Your task to perform on an android device: open app "Grab" (install if not already installed) Image 0: 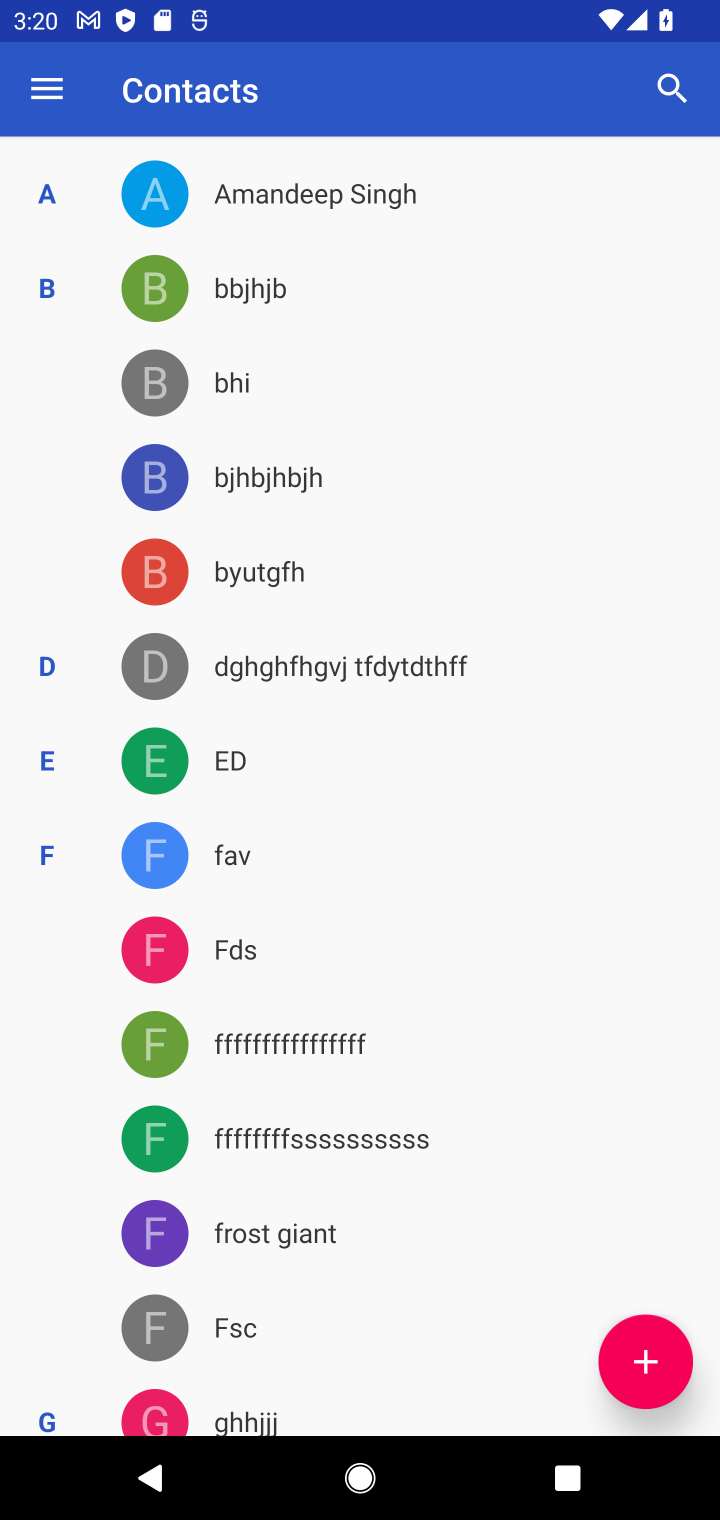
Step 0: press home button
Your task to perform on an android device: open app "Grab" (install if not already installed) Image 1: 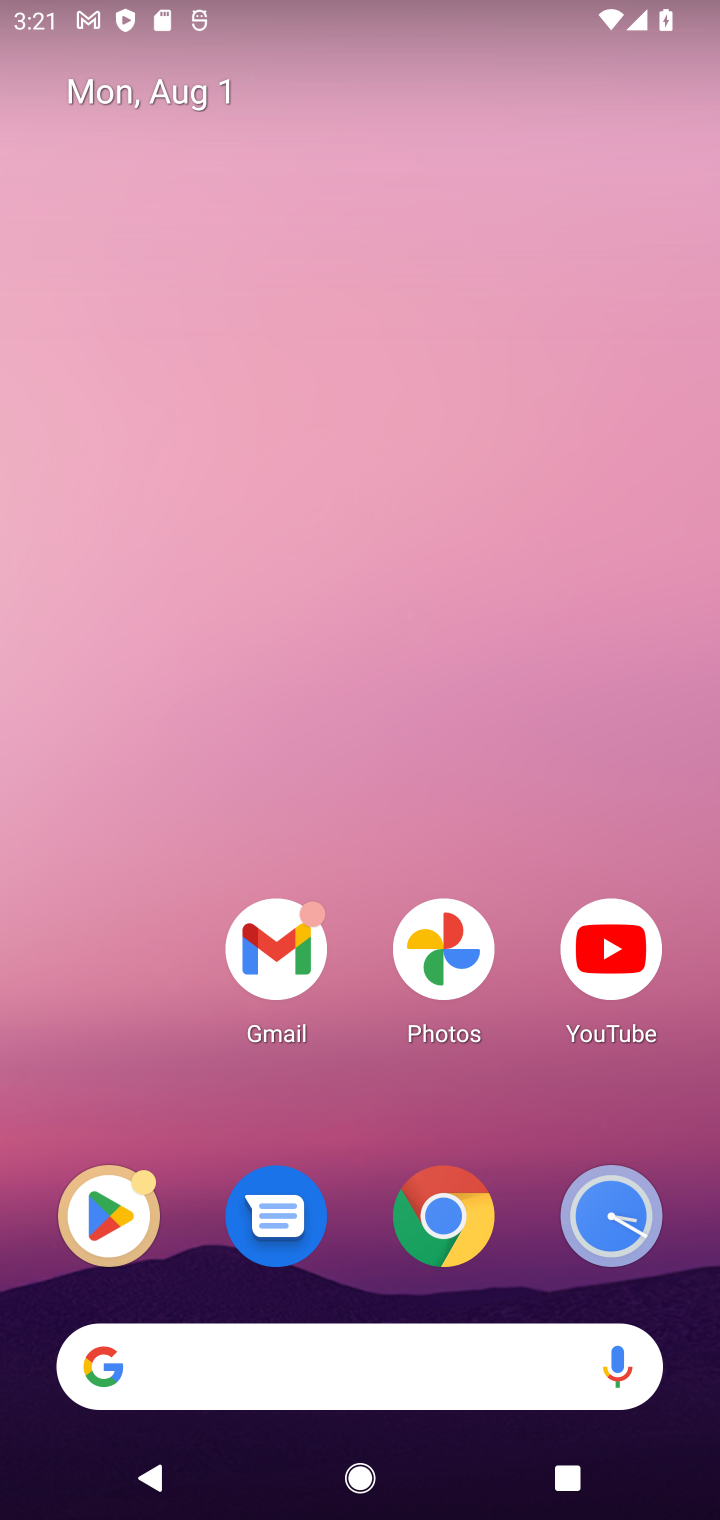
Step 1: drag from (483, 1371) to (454, 114)
Your task to perform on an android device: open app "Grab" (install if not already installed) Image 2: 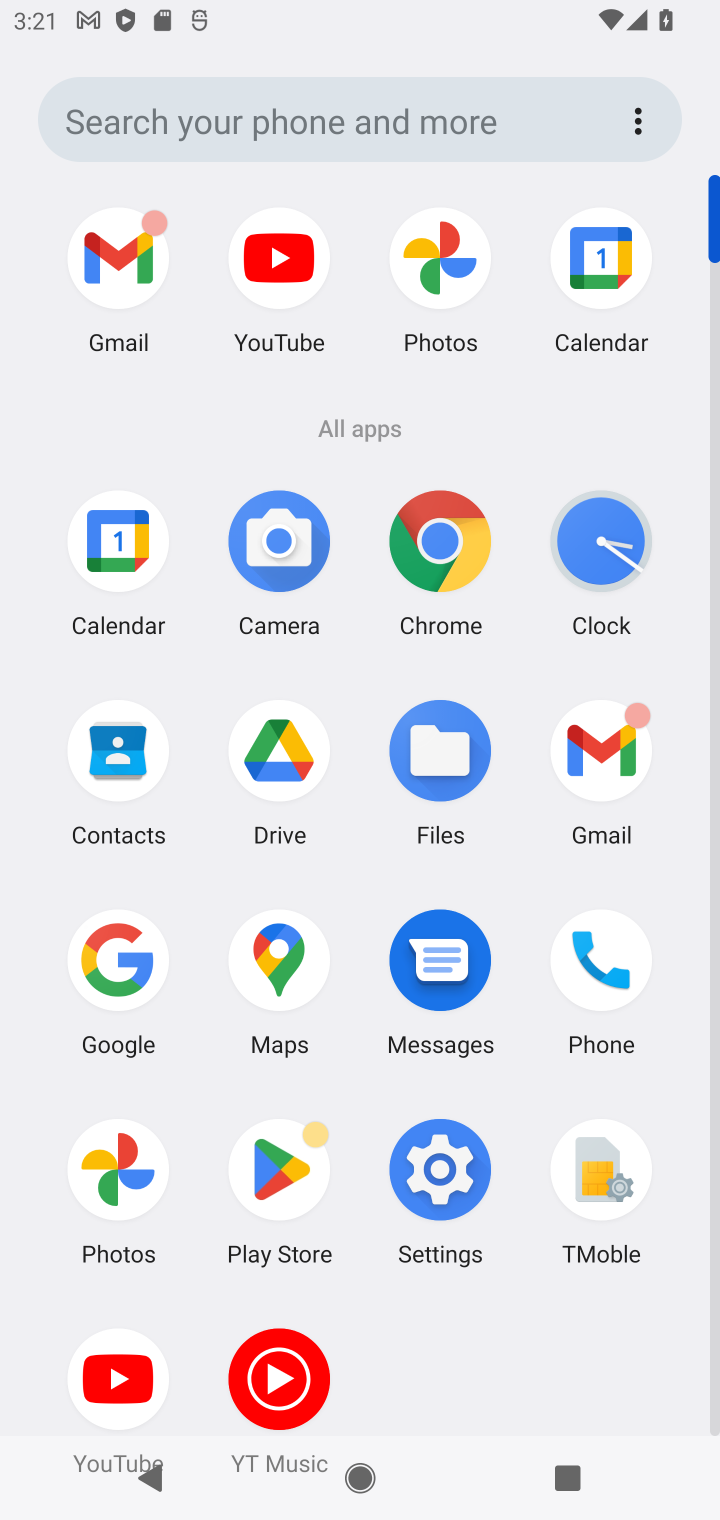
Step 2: click (251, 1165)
Your task to perform on an android device: open app "Grab" (install if not already installed) Image 3: 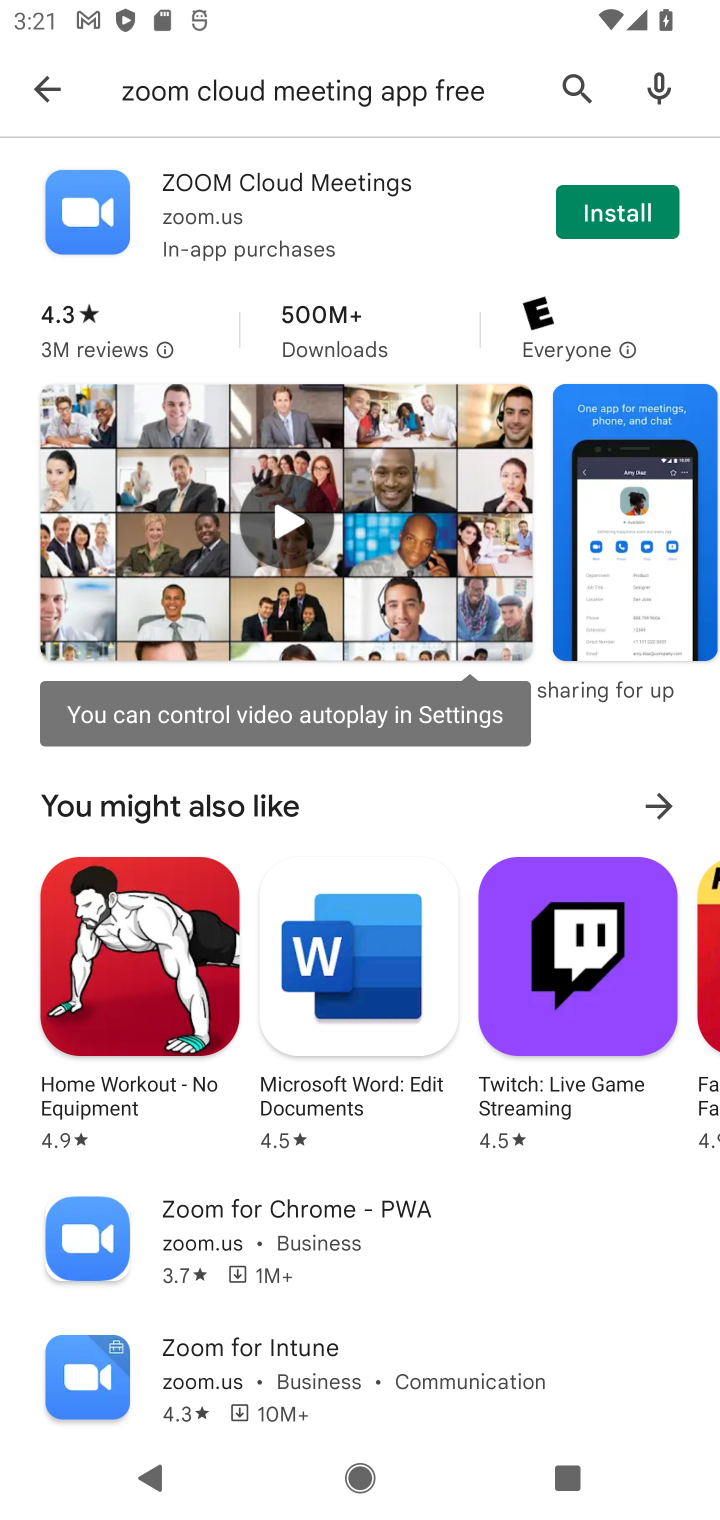
Step 3: click (582, 106)
Your task to perform on an android device: open app "Grab" (install if not already installed) Image 4: 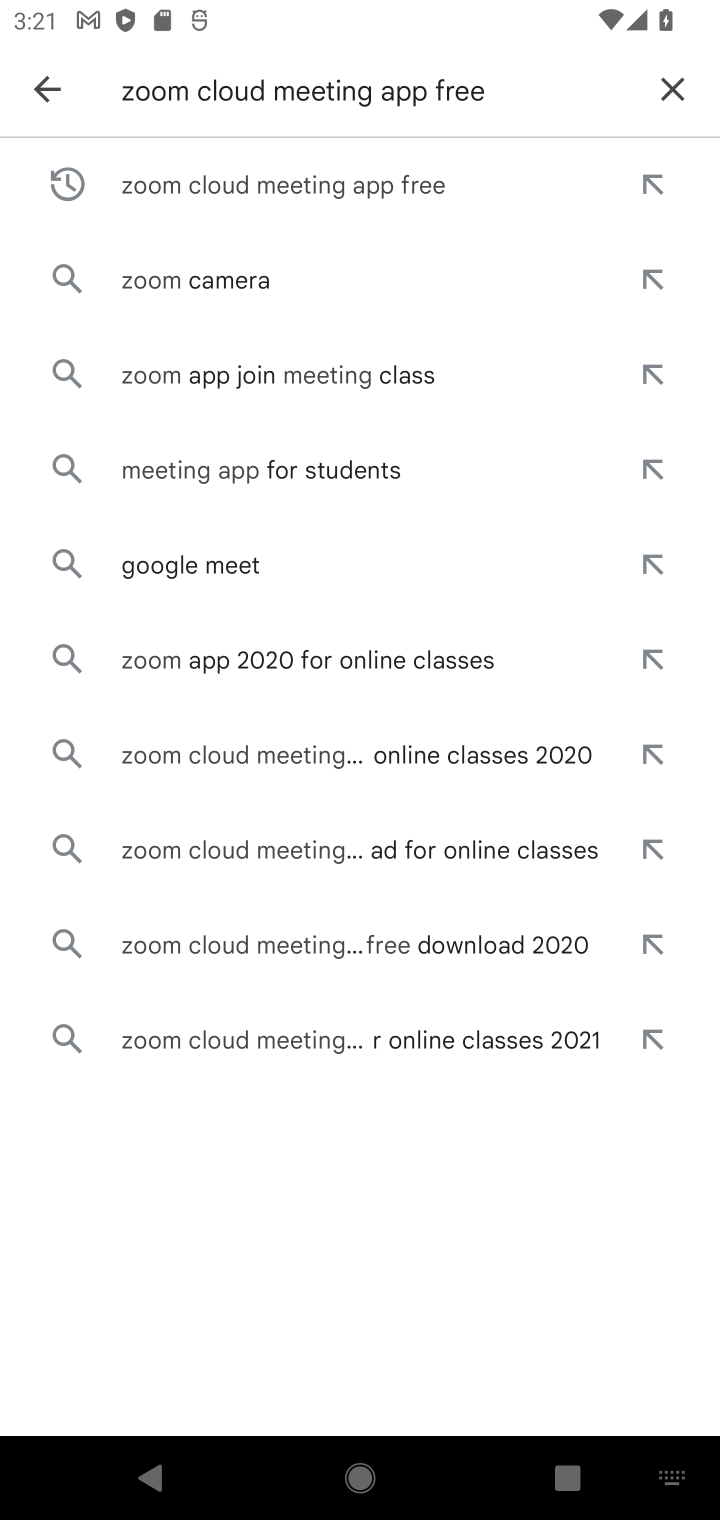
Step 4: click (678, 76)
Your task to perform on an android device: open app "Grab" (install if not already installed) Image 5: 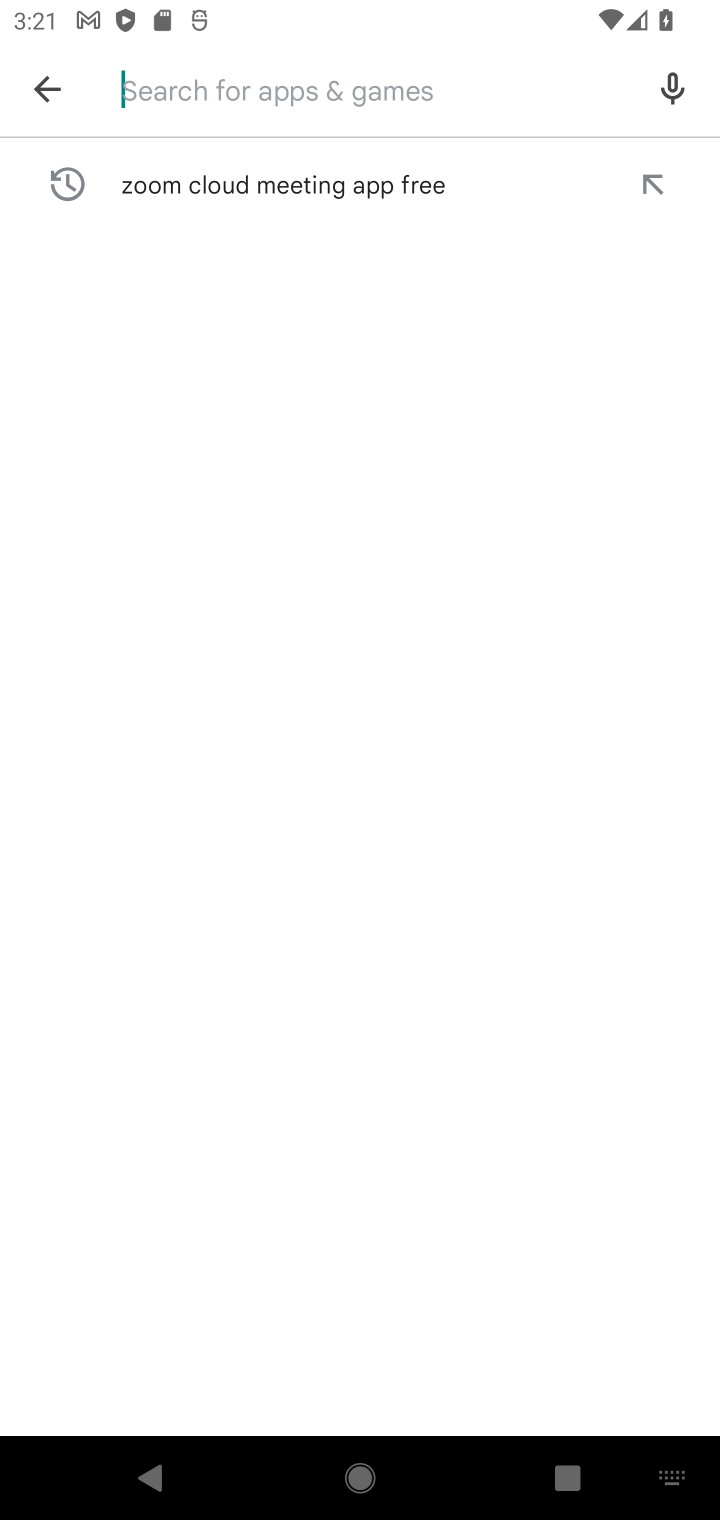
Step 5: type "grab"
Your task to perform on an android device: open app "Grab" (install if not already installed) Image 6: 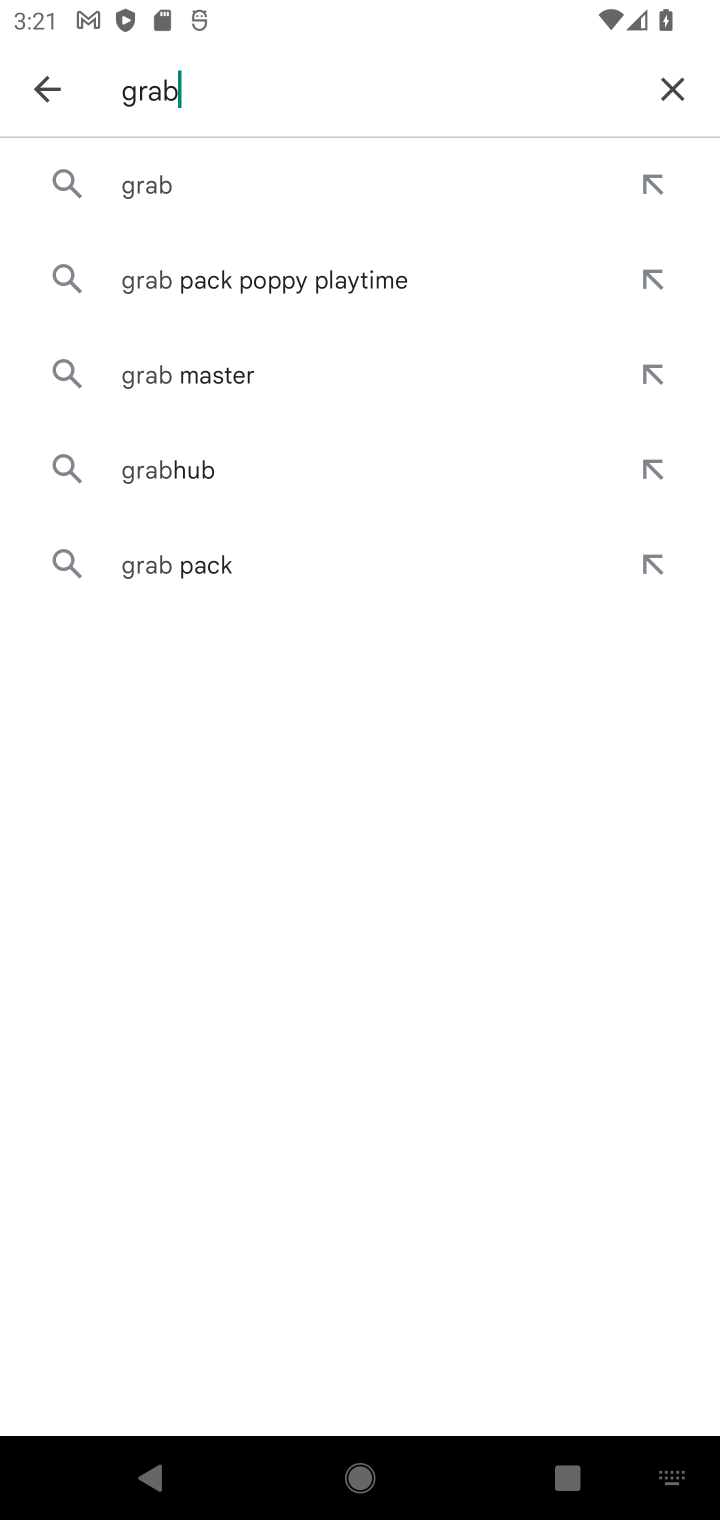
Step 6: click (406, 148)
Your task to perform on an android device: open app "Grab" (install if not already installed) Image 7: 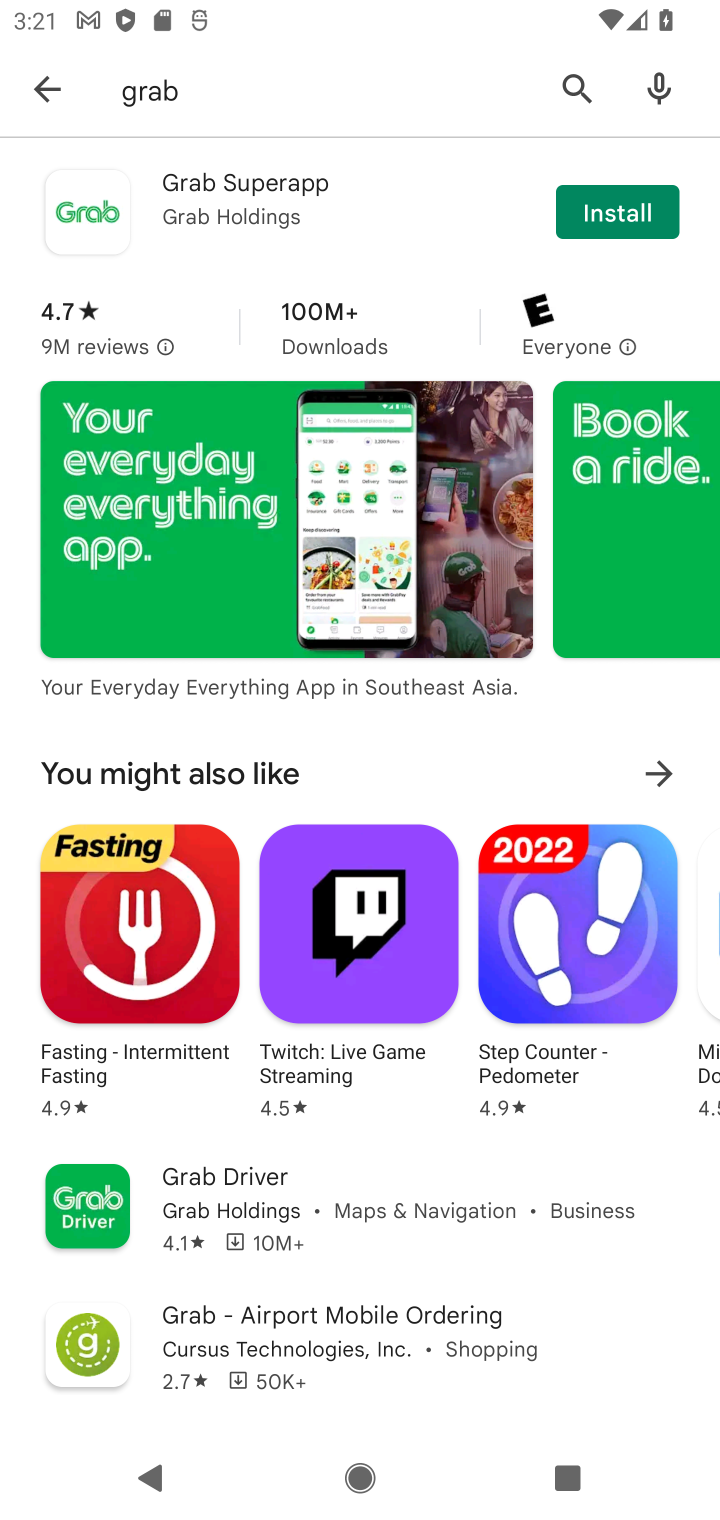
Step 7: click (629, 207)
Your task to perform on an android device: open app "Grab" (install if not already installed) Image 8: 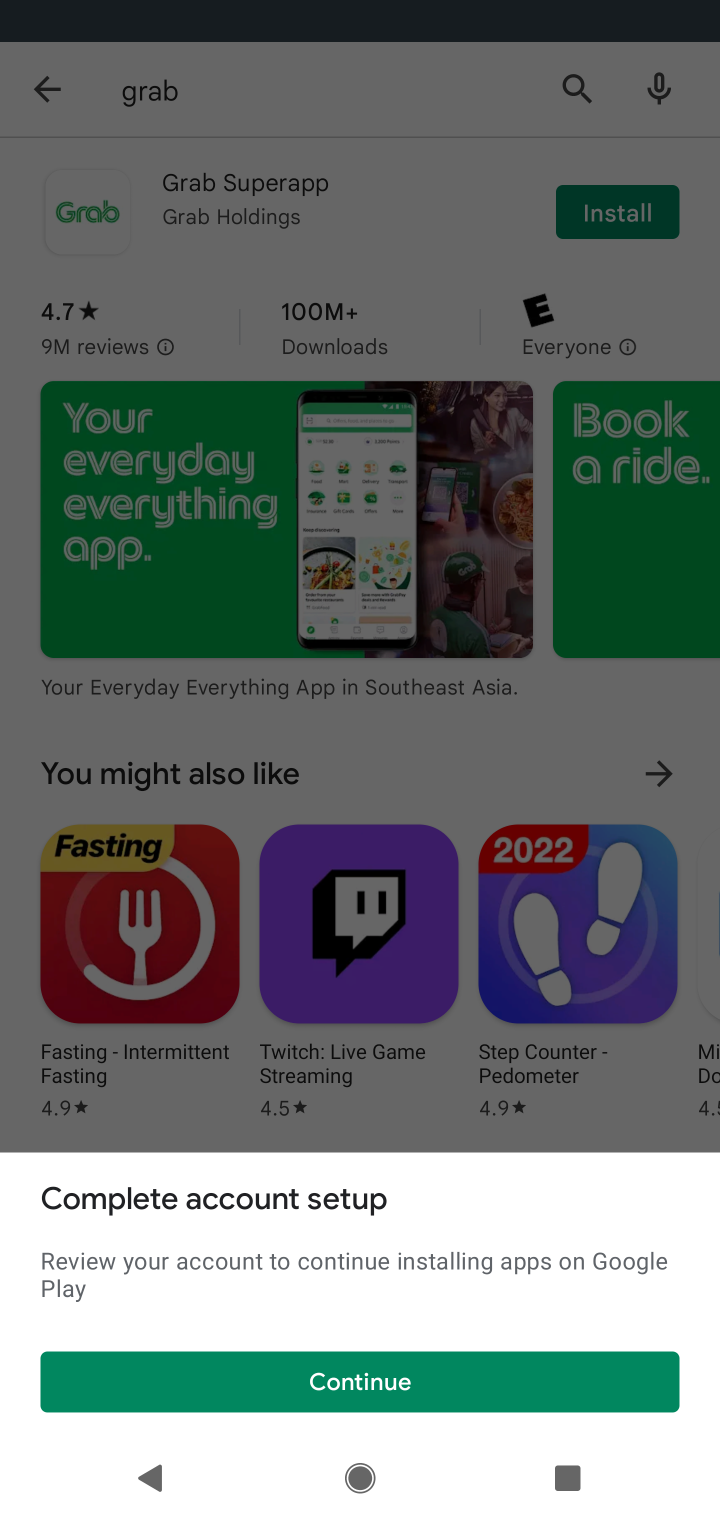
Step 8: click (395, 1348)
Your task to perform on an android device: open app "Grab" (install if not already installed) Image 9: 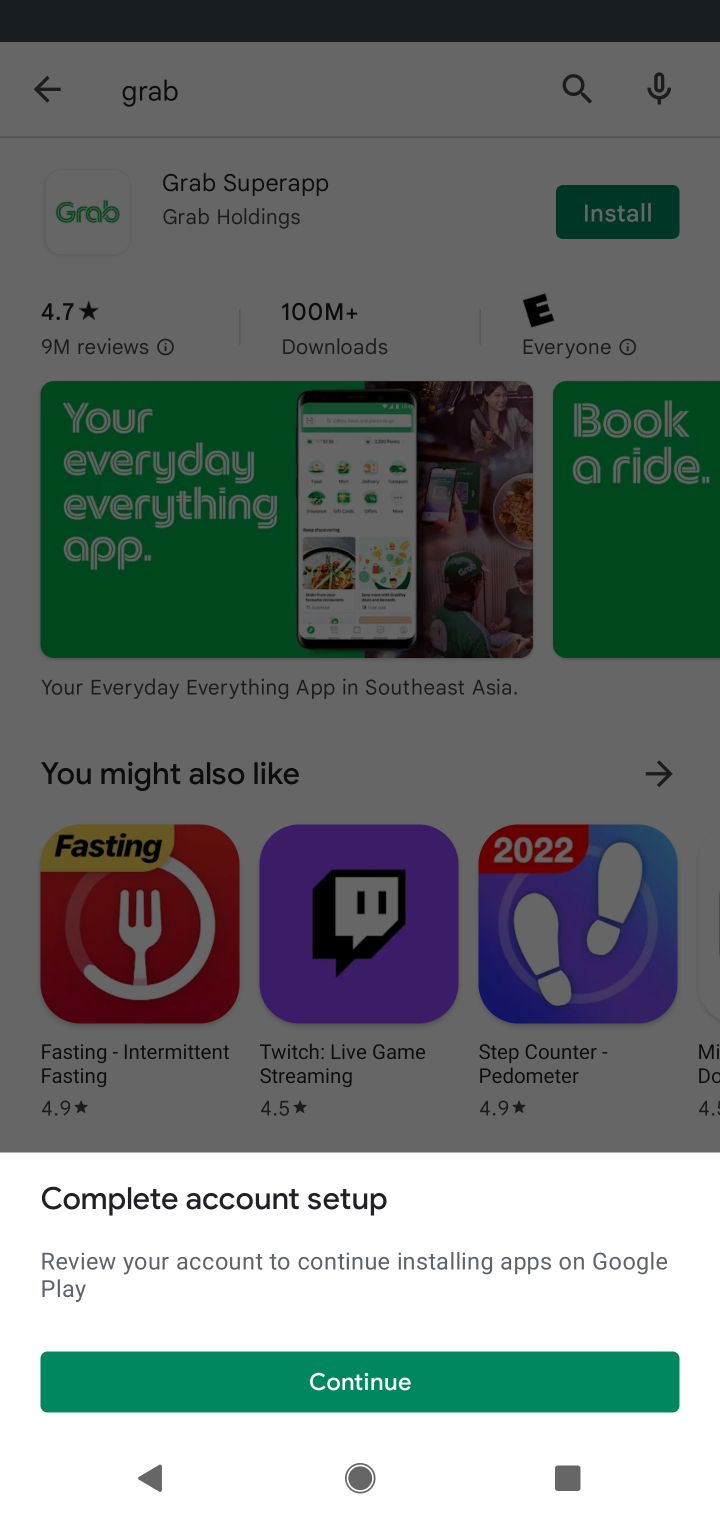
Step 9: click (395, 1348)
Your task to perform on an android device: open app "Grab" (install if not already installed) Image 10: 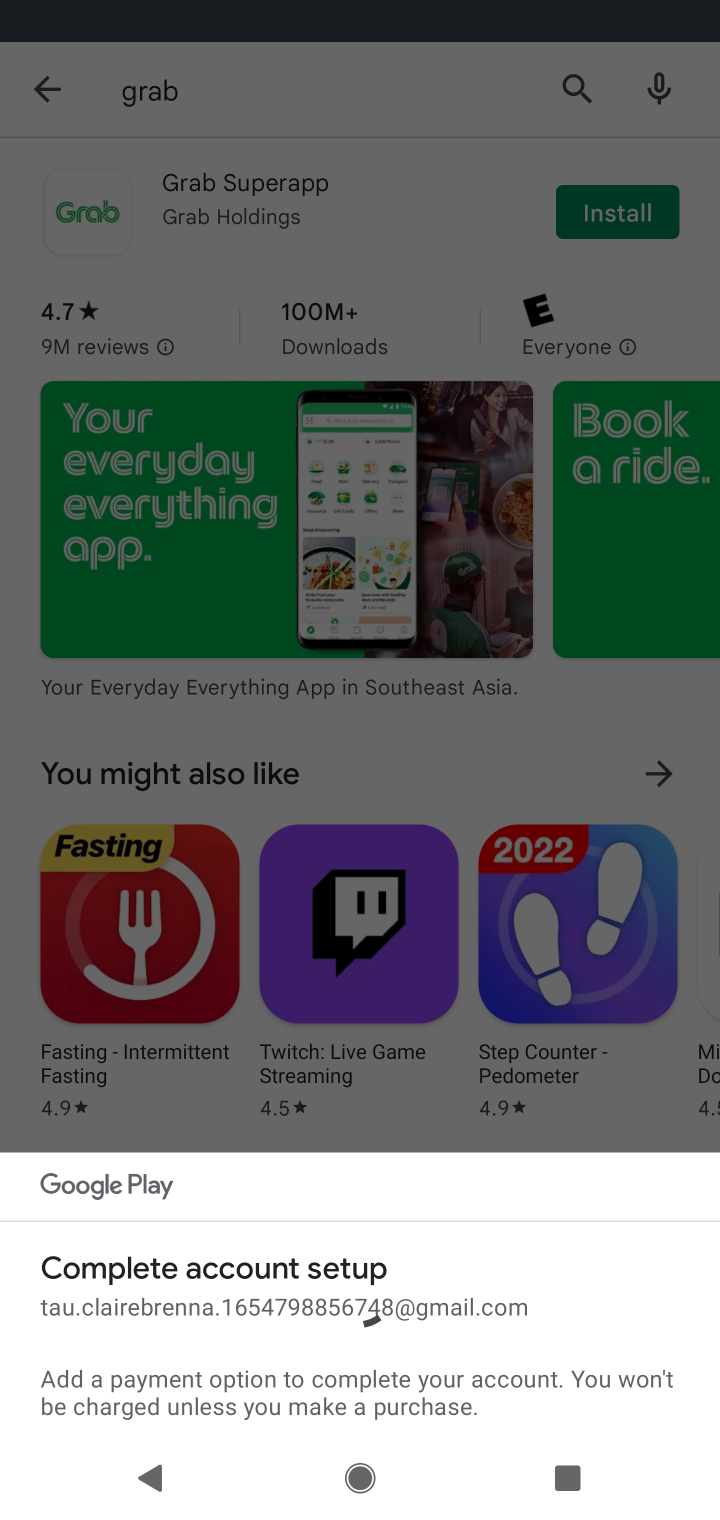
Step 10: click (386, 1356)
Your task to perform on an android device: open app "Grab" (install if not already installed) Image 11: 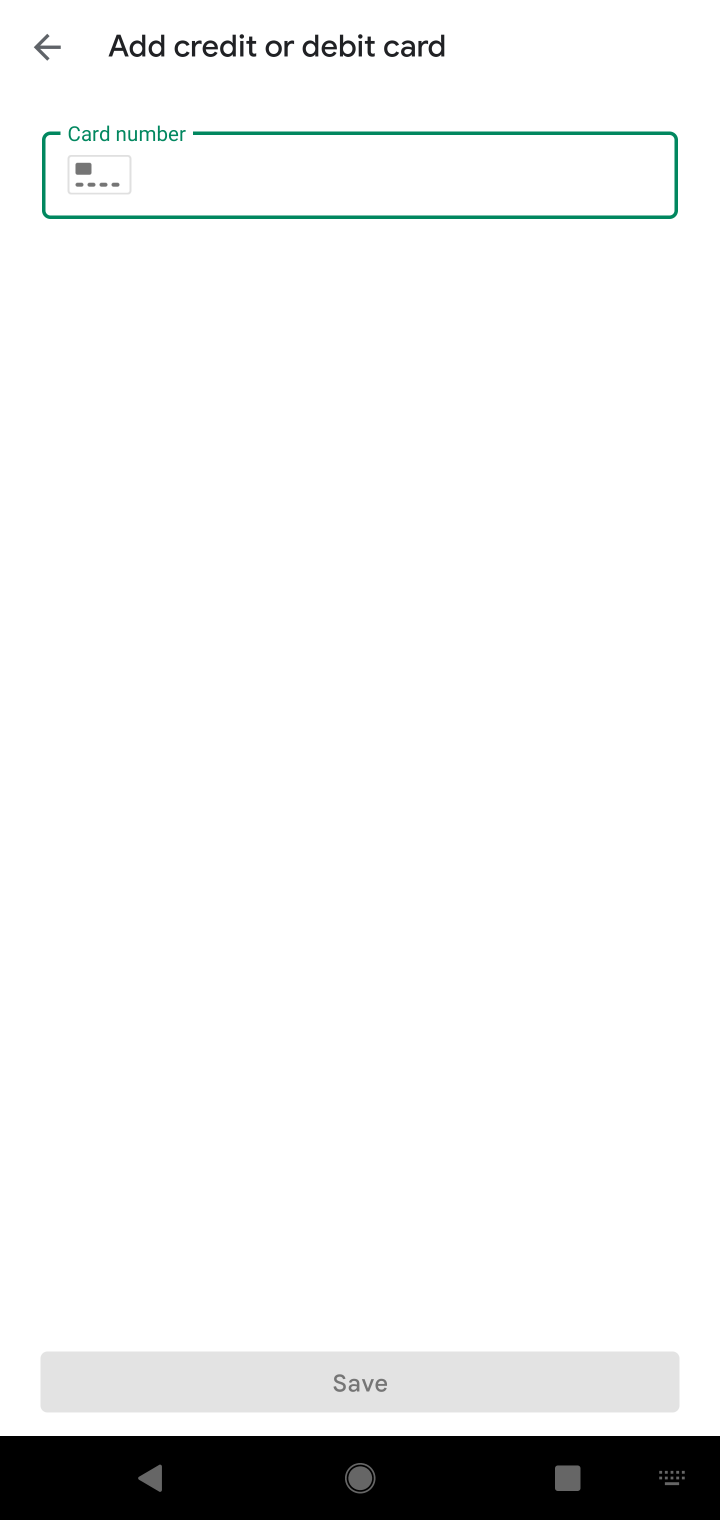
Step 11: click (50, 46)
Your task to perform on an android device: open app "Grab" (install if not already installed) Image 12: 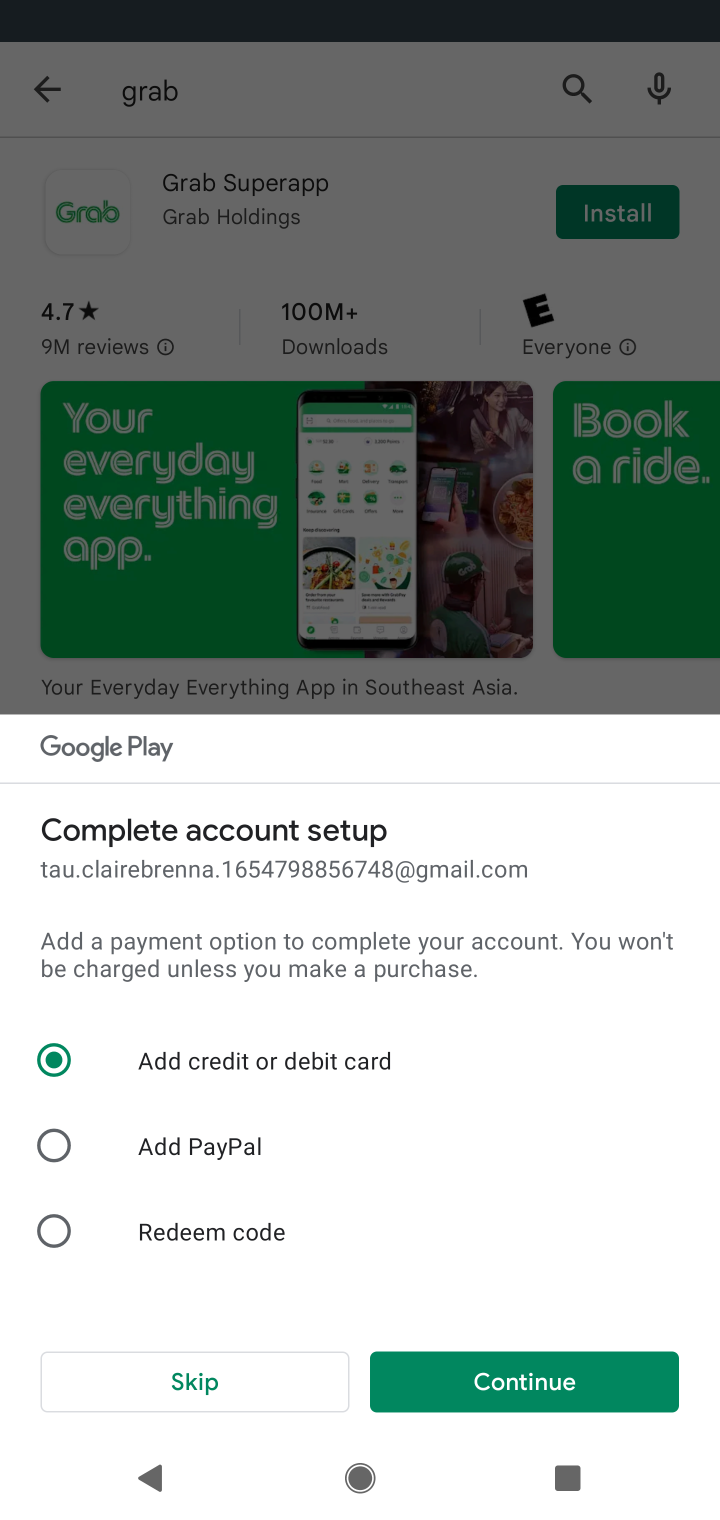
Step 12: click (208, 1376)
Your task to perform on an android device: open app "Grab" (install if not already installed) Image 13: 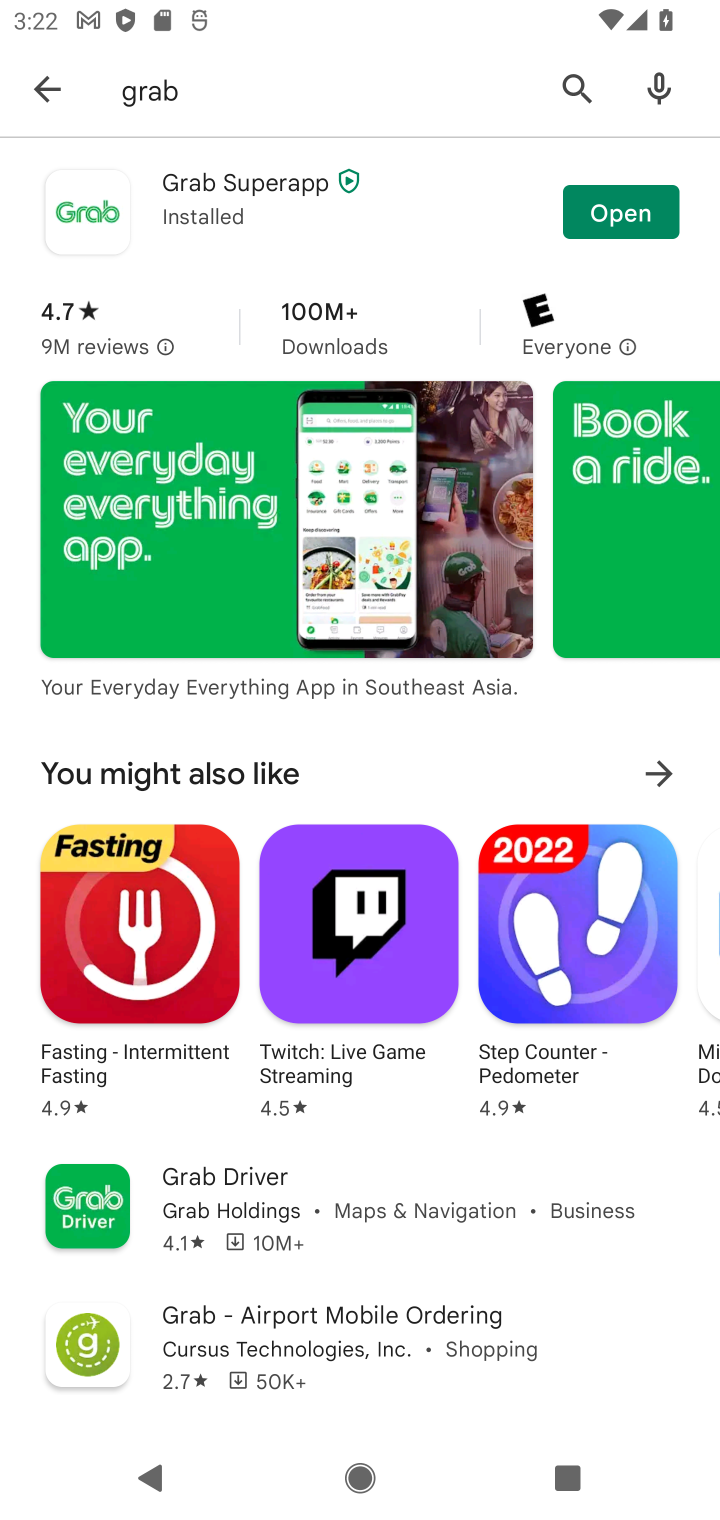
Step 13: click (650, 188)
Your task to perform on an android device: open app "Grab" (install if not already installed) Image 14: 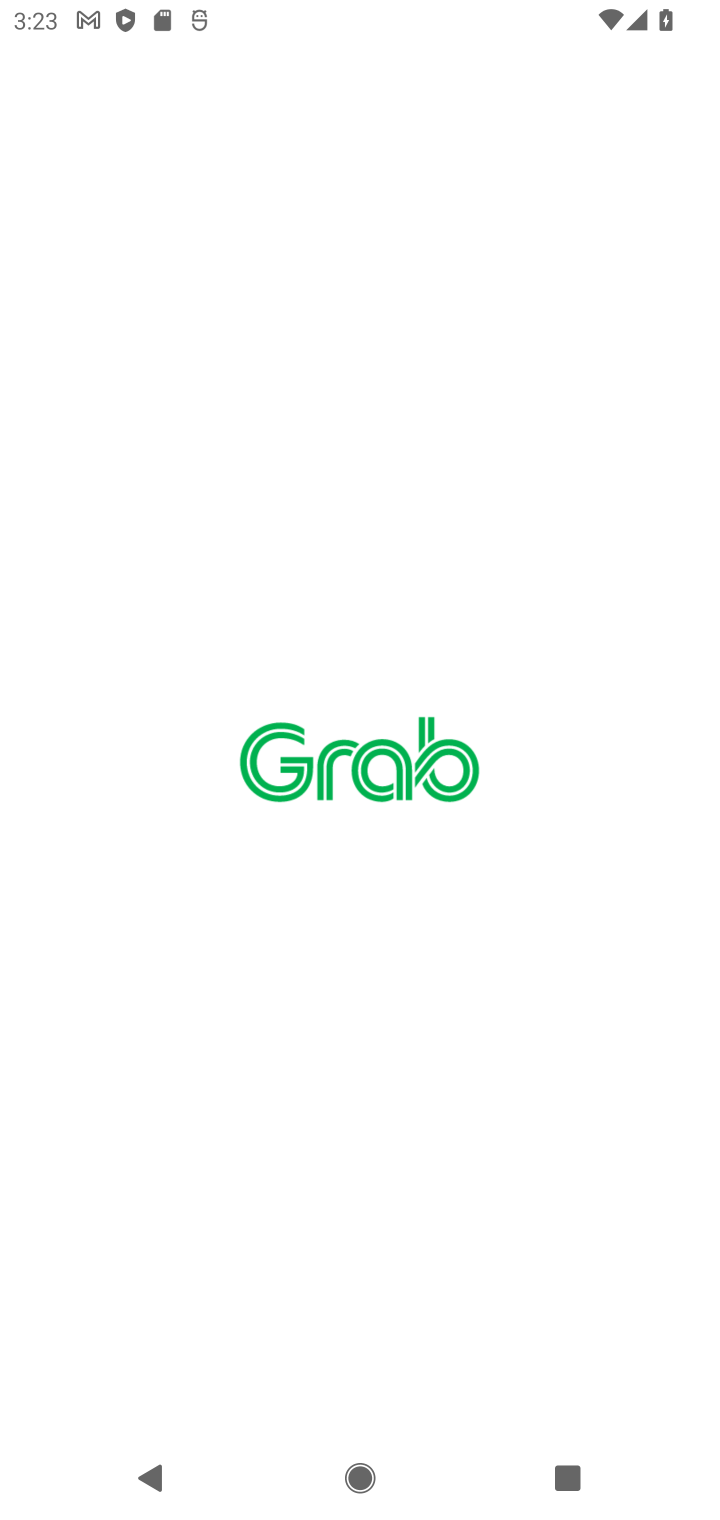
Step 14: click (650, 188)
Your task to perform on an android device: open app "Grab" (install if not already installed) Image 15: 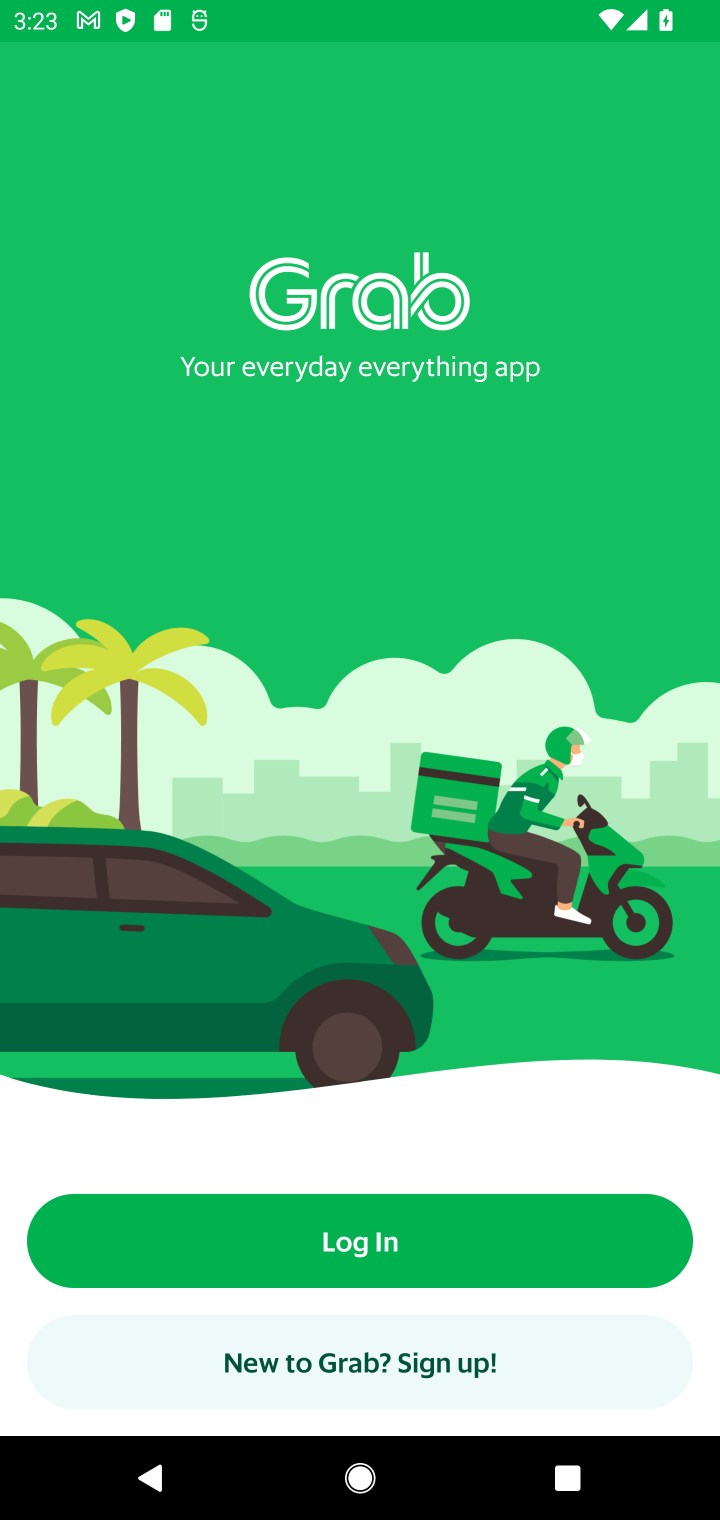
Step 15: task complete